Your task to perform on an android device: check data usage Image 0: 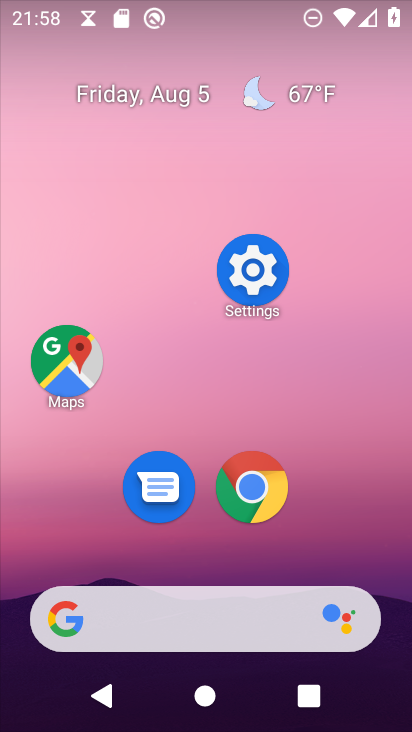
Step 0: press home button
Your task to perform on an android device: check data usage Image 1: 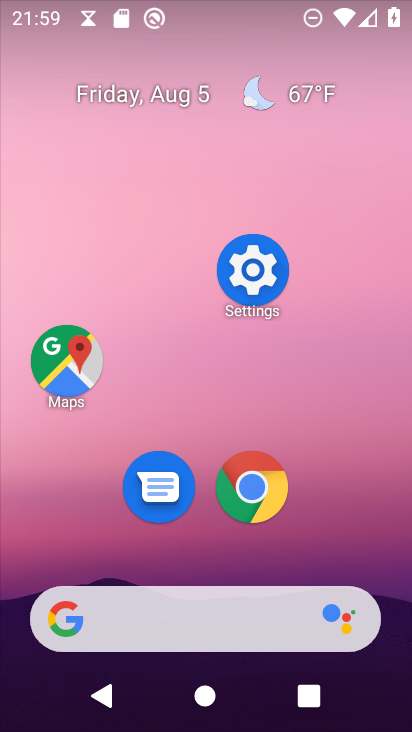
Step 1: click (261, 269)
Your task to perform on an android device: check data usage Image 2: 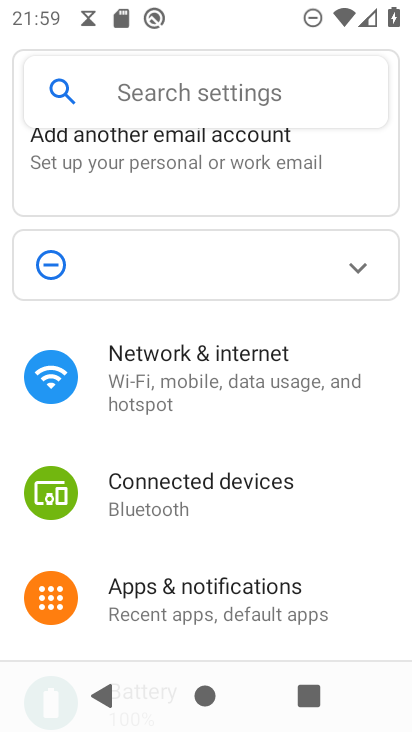
Step 2: click (182, 360)
Your task to perform on an android device: check data usage Image 3: 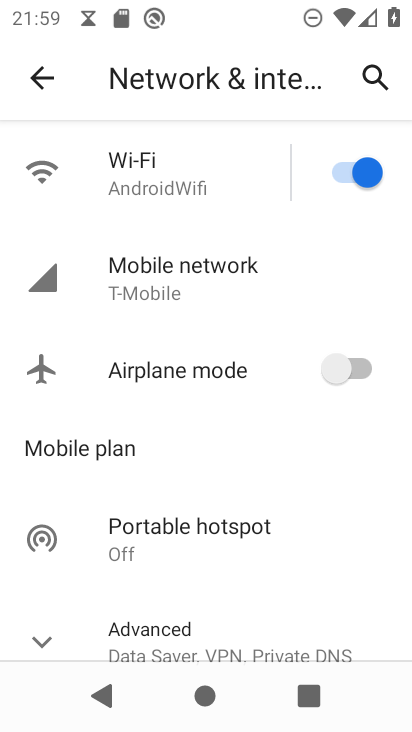
Step 3: click (153, 176)
Your task to perform on an android device: check data usage Image 4: 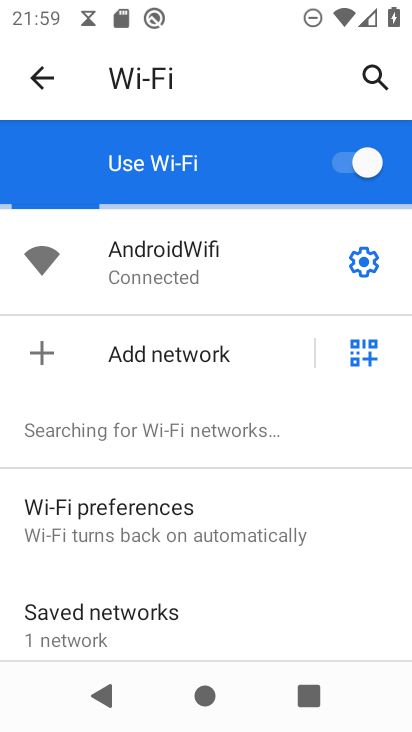
Step 4: drag from (262, 537) to (397, 140)
Your task to perform on an android device: check data usage Image 5: 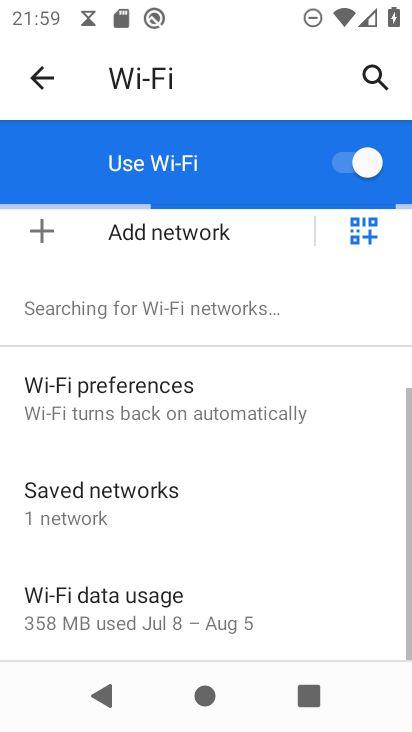
Step 5: click (131, 607)
Your task to perform on an android device: check data usage Image 6: 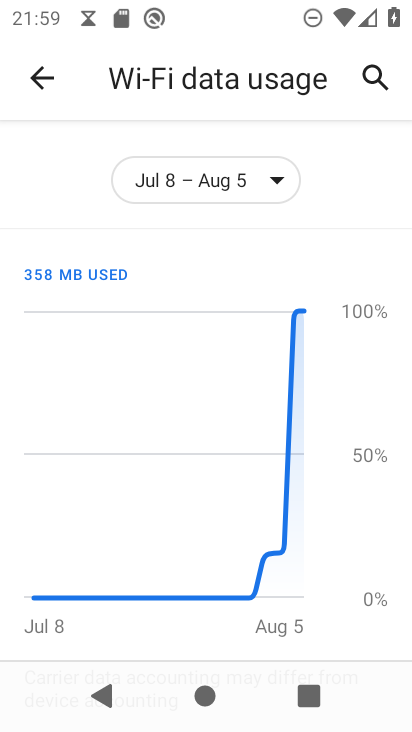
Step 6: task complete